Your task to perform on an android device: Open the Play Movies app and select the watchlist tab. Image 0: 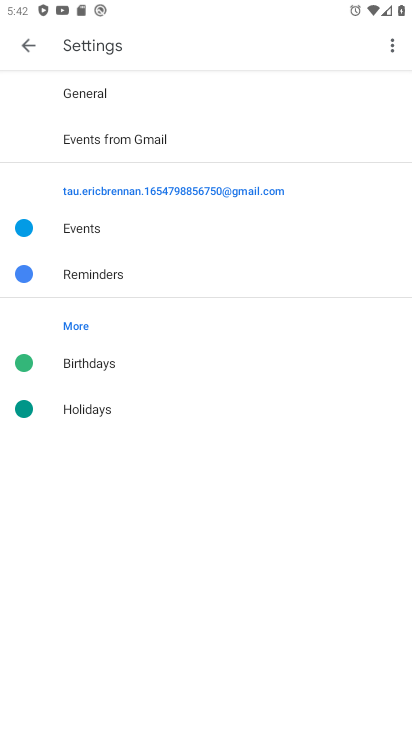
Step 0: press home button
Your task to perform on an android device: Open the Play Movies app and select the watchlist tab. Image 1: 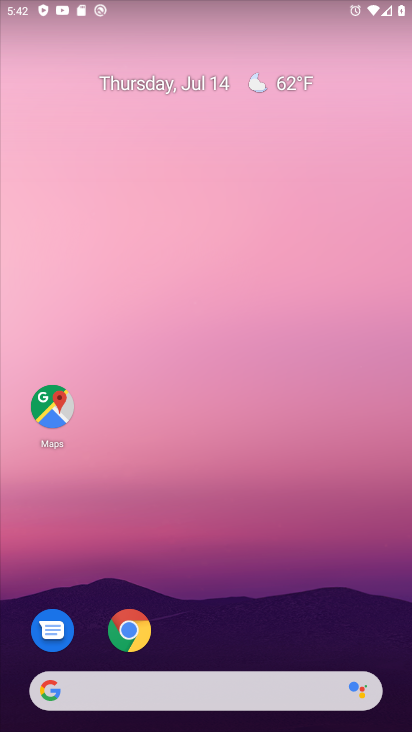
Step 1: drag from (180, 620) to (221, 69)
Your task to perform on an android device: Open the Play Movies app and select the watchlist tab. Image 2: 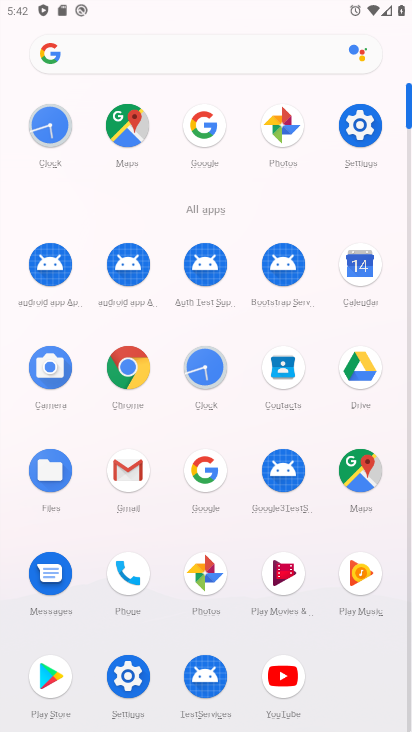
Step 2: click (268, 557)
Your task to perform on an android device: Open the Play Movies app and select the watchlist tab. Image 3: 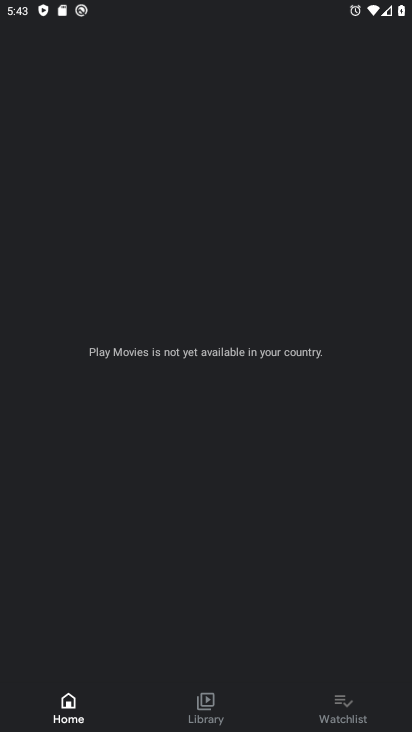
Step 3: click (342, 701)
Your task to perform on an android device: Open the Play Movies app and select the watchlist tab. Image 4: 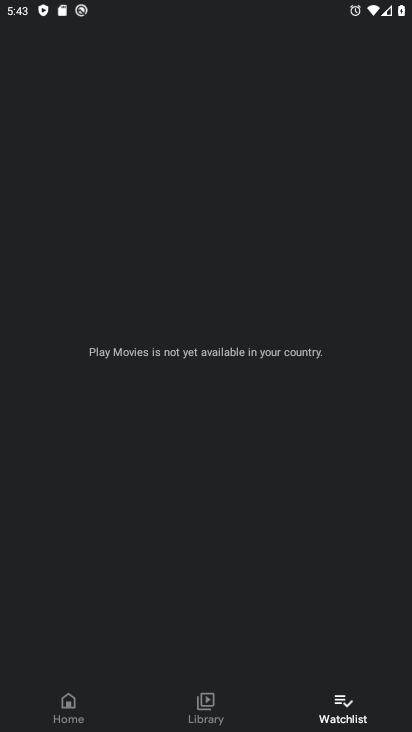
Step 4: task complete